Your task to perform on an android device: Go to sound settings Image 0: 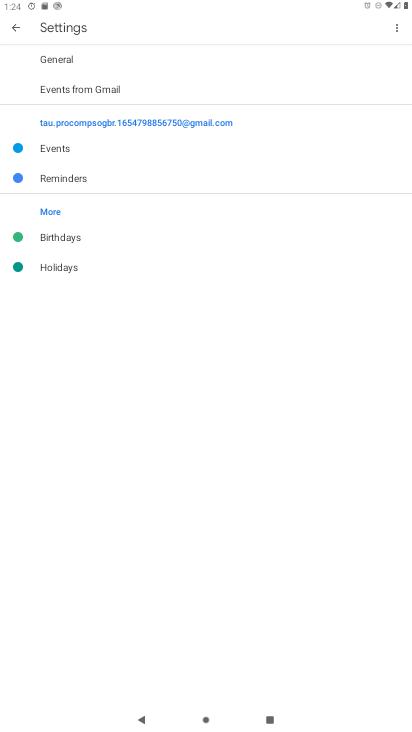
Step 0: press home button
Your task to perform on an android device: Go to sound settings Image 1: 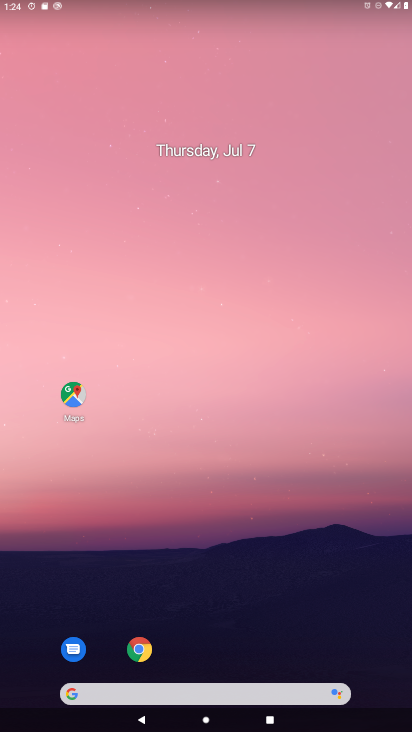
Step 1: drag from (212, 669) to (47, 144)
Your task to perform on an android device: Go to sound settings Image 2: 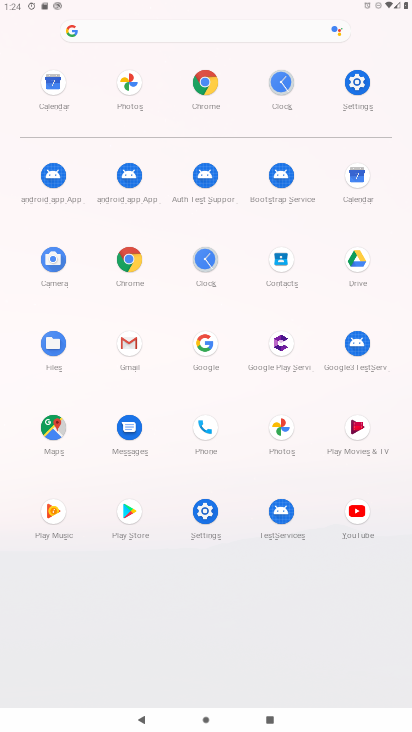
Step 2: click (206, 517)
Your task to perform on an android device: Go to sound settings Image 3: 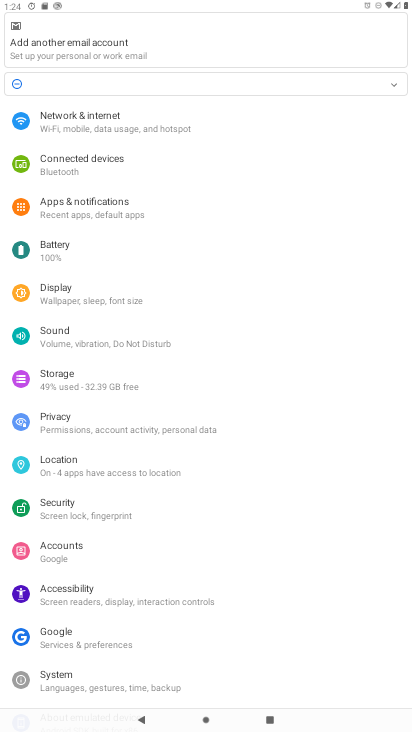
Step 3: click (39, 341)
Your task to perform on an android device: Go to sound settings Image 4: 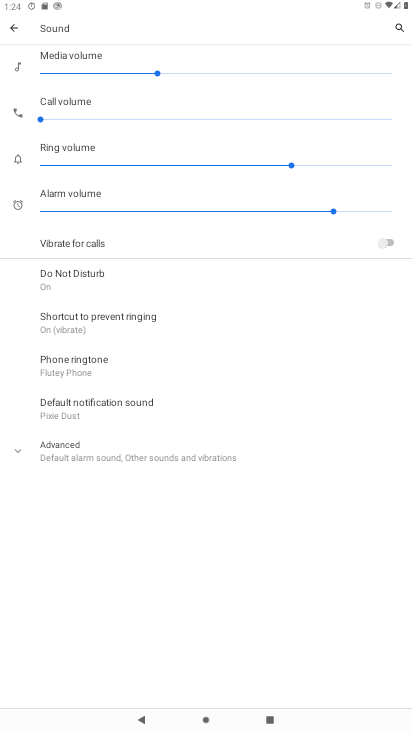
Step 4: click (55, 452)
Your task to perform on an android device: Go to sound settings Image 5: 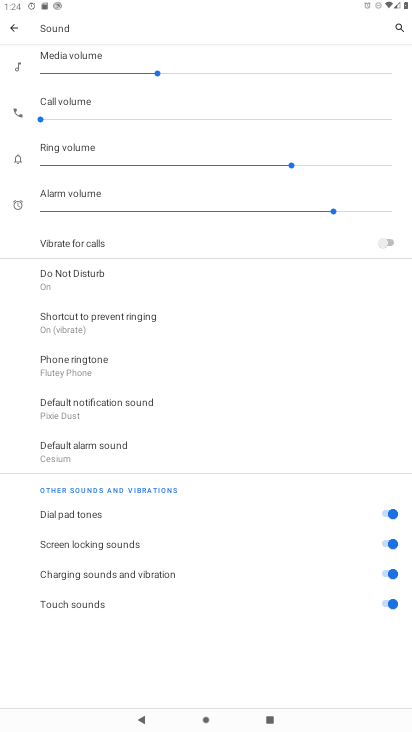
Step 5: task complete